Your task to perform on an android device: Open the stopwatch Image 0: 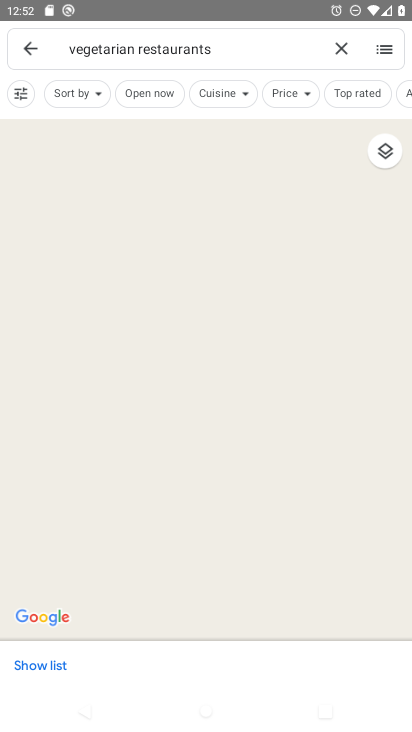
Step 0: press home button
Your task to perform on an android device: Open the stopwatch Image 1: 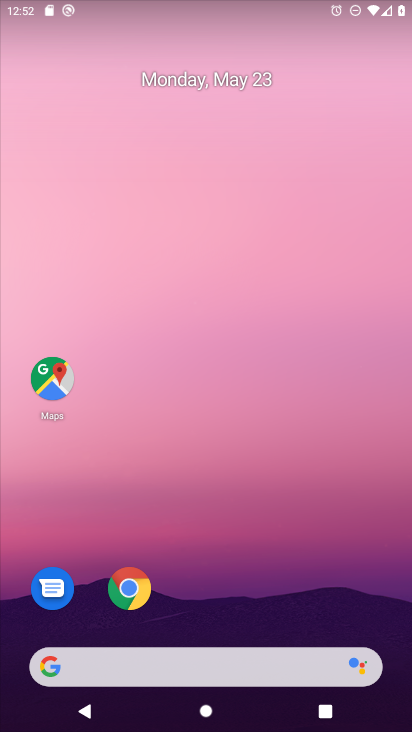
Step 1: drag from (209, 681) to (165, 98)
Your task to perform on an android device: Open the stopwatch Image 2: 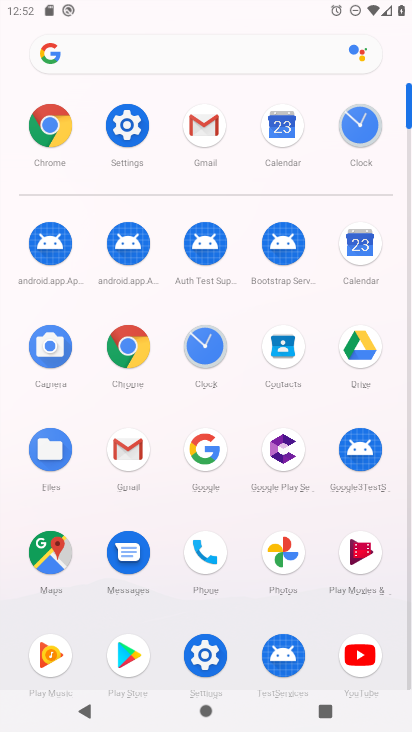
Step 2: click (210, 343)
Your task to perform on an android device: Open the stopwatch Image 3: 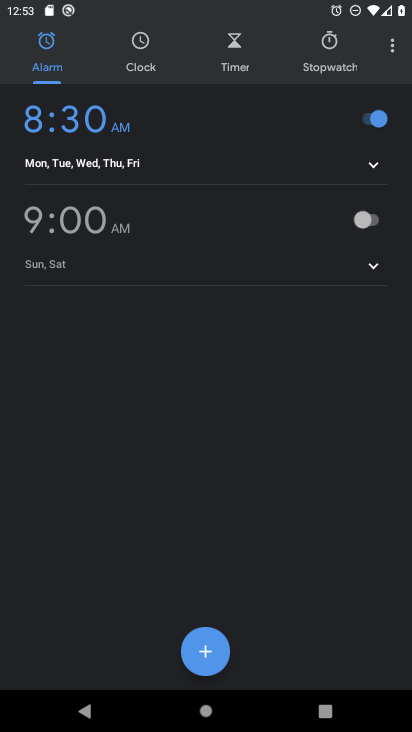
Step 3: click (321, 66)
Your task to perform on an android device: Open the stopwatch Image 4: 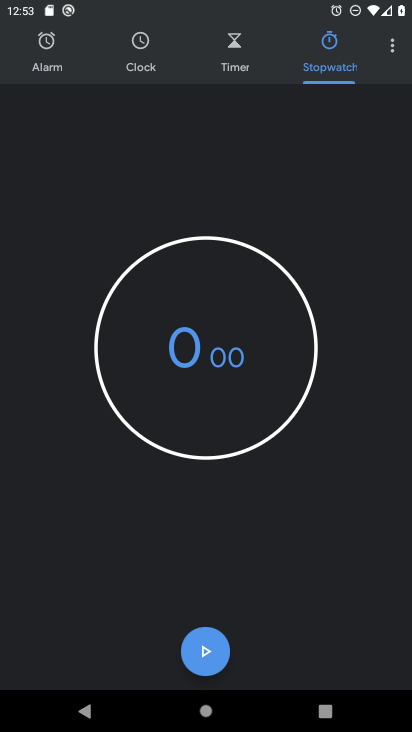
Step 4: task complete